Your task to perform on an android device: What's the weather today? Image 0: 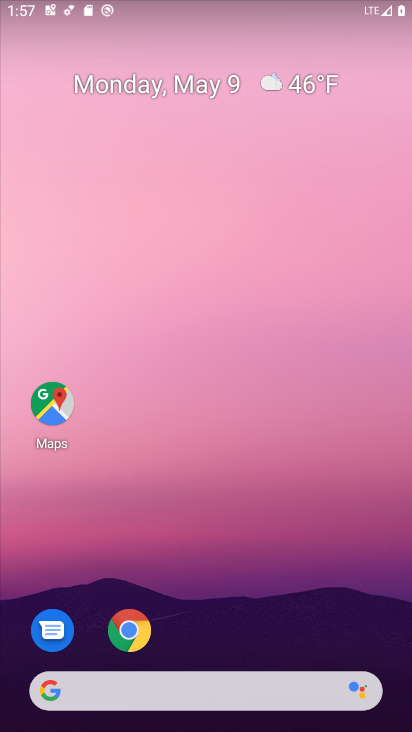
Step 0: click (309, 88)
Your task to perform on an android device: What's the weather today? Image 1: 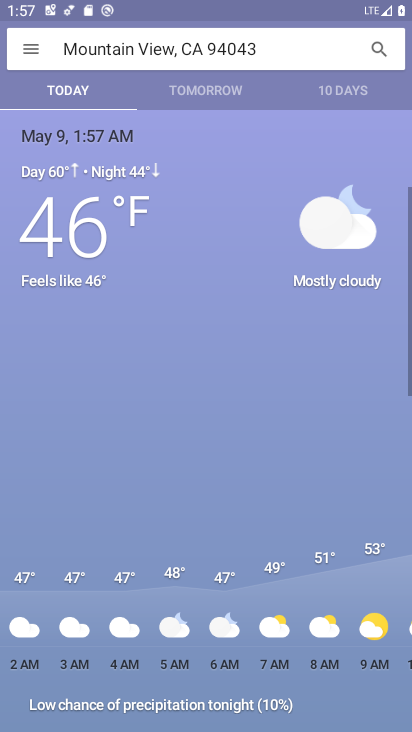
Step 1: task complete